Your task to perform on an android device: toggle pop-ups in chrome Image 0: 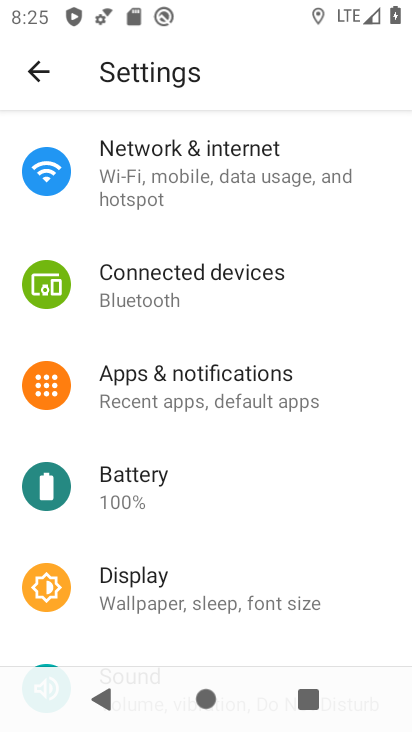
Step 0: press back button
Your task to perform on an android device: toggle pop-ups in chrome Image 1: 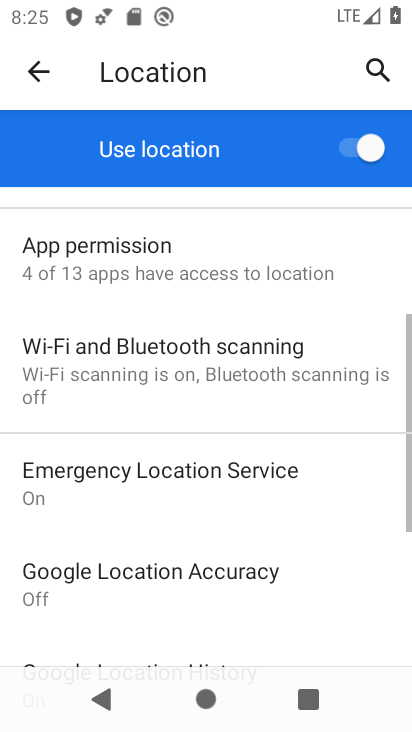
Step 1: press back button
Your task to perform on an android device: toggle pop-ups in chrome Image 2: 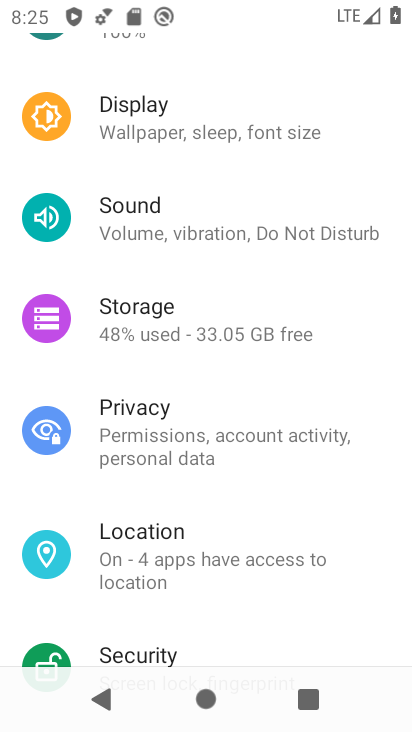
Step 2: press back button
Your task to perform on an android device: toggle pop-ups in chrome Image 3: 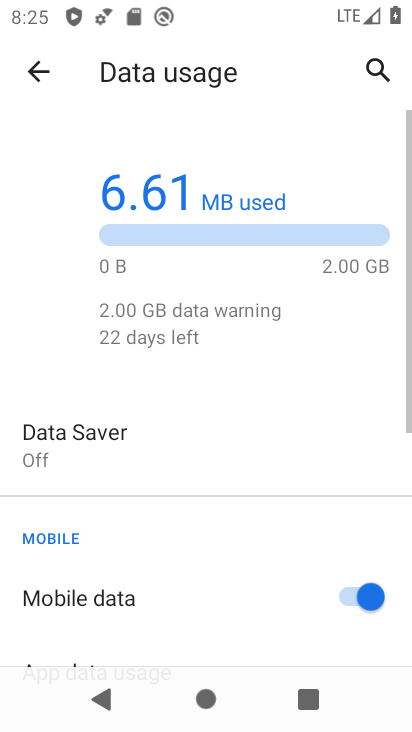
Step 3: press back button
Your task to perform on an android device: toggle pop-ups in chrome Image 4: 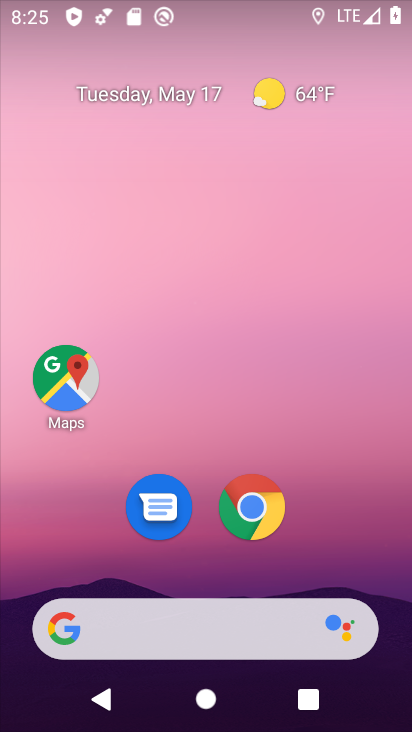
Step 4: click (251, 506)
Your task to perform on an android device: toggle pop-ups in chrome Image 5: 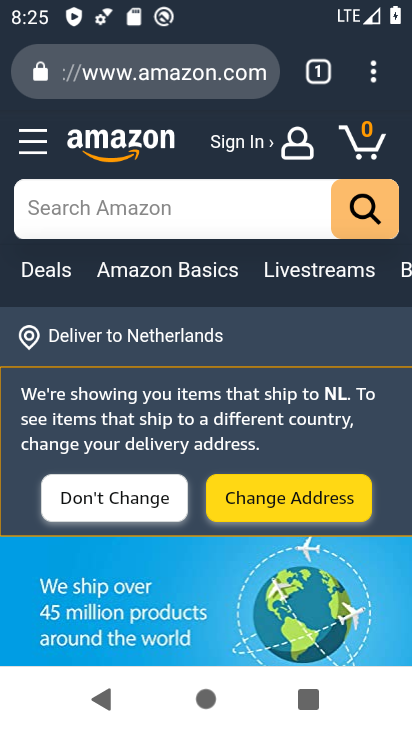
Step 5: click (373, 72)
Your task to perform on an android device: toggle pop-ups in chrome Image 6: 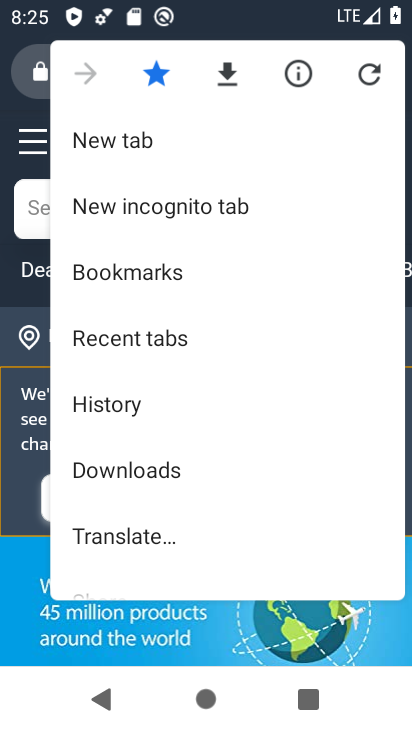
Step 6: drag from (140, 488) to (179, 390)
Your task to perform on an android device: toggle pop-ups in chrome Image 7: 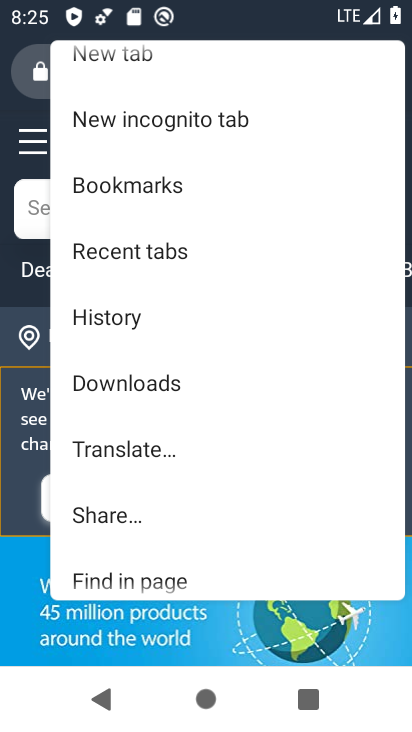
Step 7: drag from (96, 484) to (145, 391)
Your task to perform on an android device: toggle pop-ups in chrome Image 8: 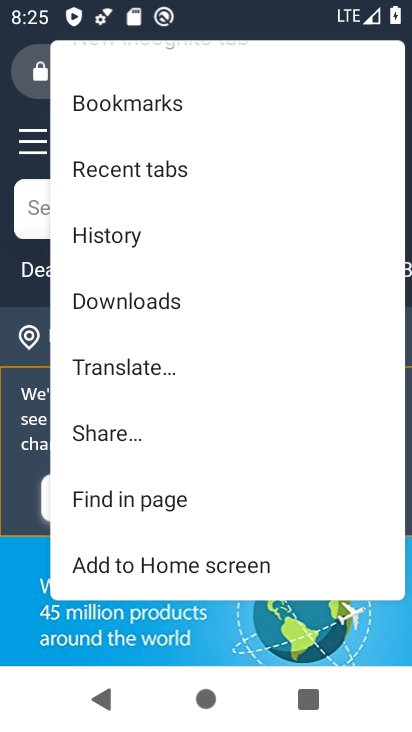
Step 8: drag from (97, 475) to (157, 376)
Your task to perform on an android device: toggle pop-ups in chrome Image 9: 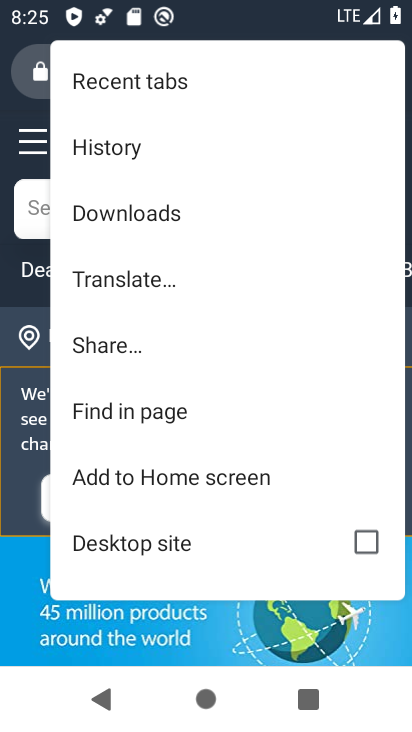
Step 9: drag from (111, 501) to (172, 396)
Your task to perform on an android device: toggle pop-ups in chrome Image 10: 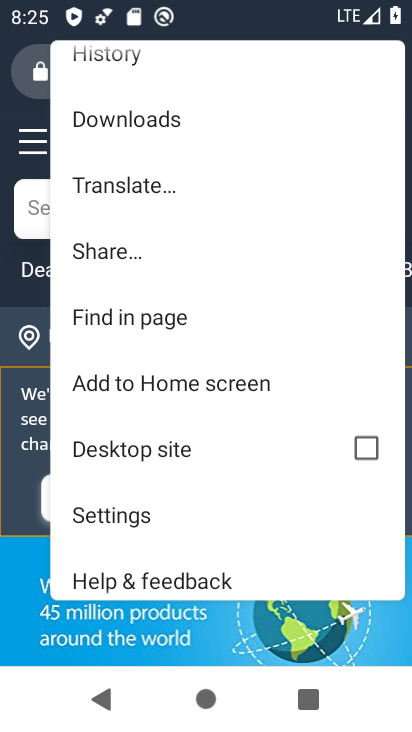
Step 10: drag from (108, 490) to (172, 373)
Your task to perform on an android device: toggle pop-ups in chrome Image 11: 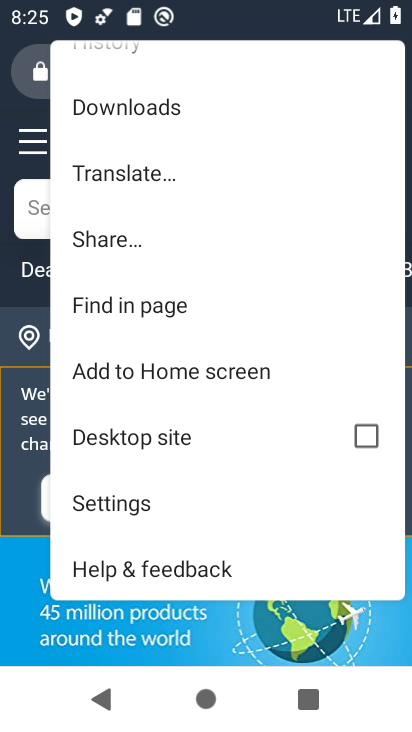
Step 11: click (105, 503)
Your task to perform on an android device: toggle pop-ups in chrome Image 12: 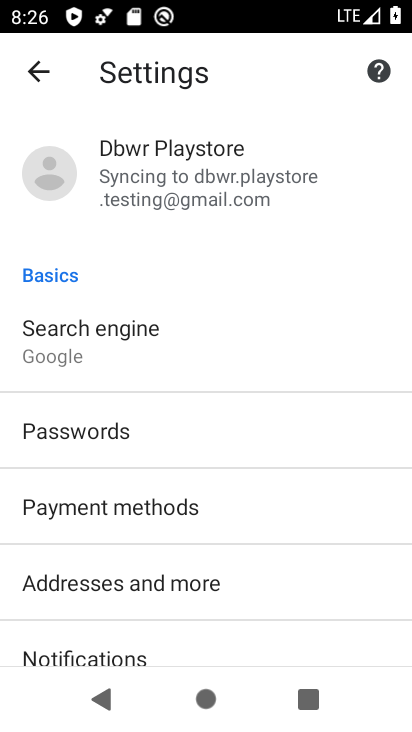
Step 12: drag from (133, 537) to (216, 425)
Your task to perform on an android device: toggle pop-ups in chrome Image 13: 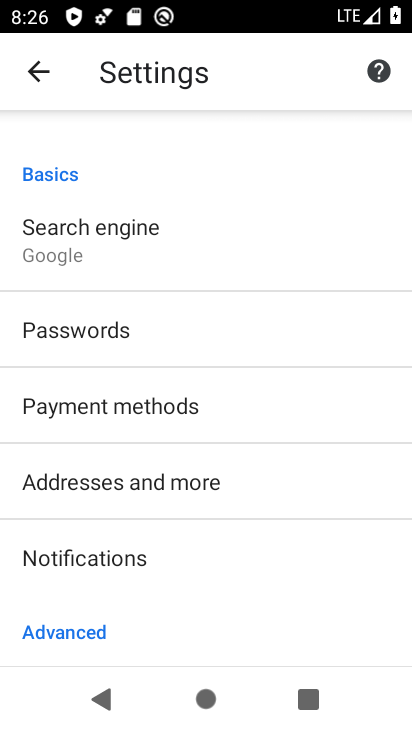
Step 13: drag from (143, 567) to (241, 445)
Your task to perform on an android device: toggle pop-ups in chrome Image 14: 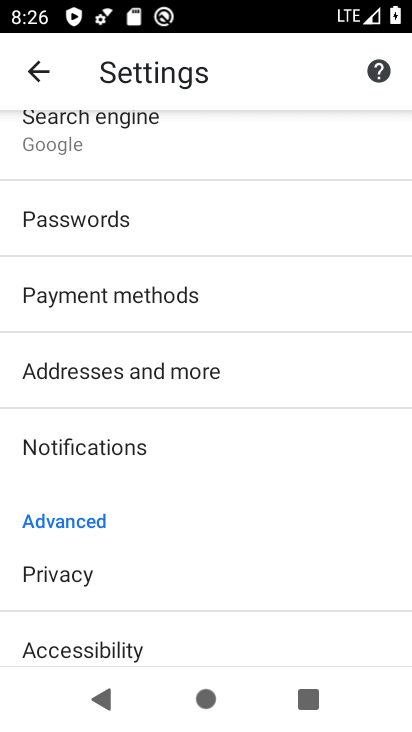
Step 14: drag from (128, 586) to (191, 478)
Your task to perform on an android device: toggle pop-ups in chrome Image 15: 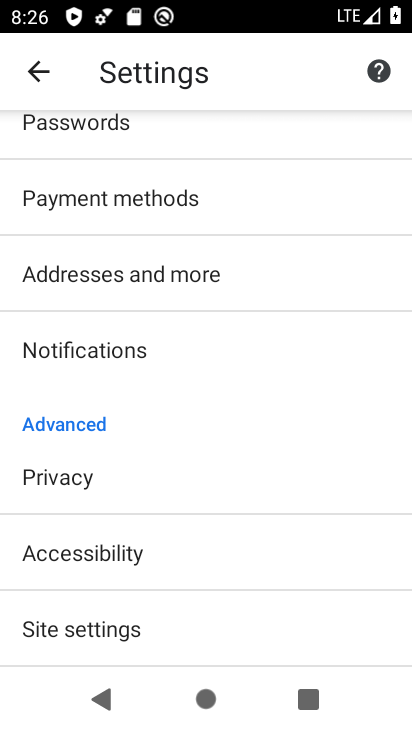
Step 15: drag from (137, 580) to (204, 474)
Your task to perform on an android device: toggle pop-ups in chrome Image 16: 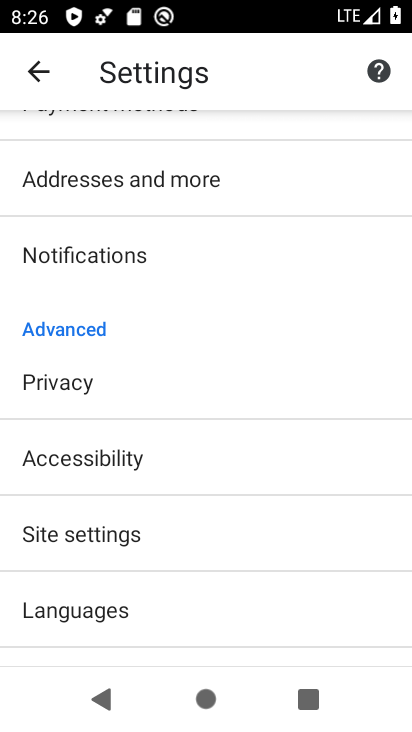
Step 16: click (119, 534)
Your task to perform on an android device: toggle pop-ups in chrome Image 17: 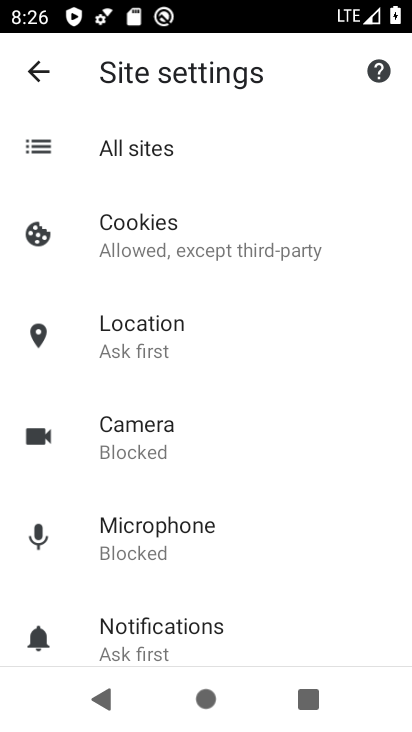
Step 17: drag from (251, 537) to (257, 446)
Your task to perform on an android device: toggle pop-ups in chrome Image 18: 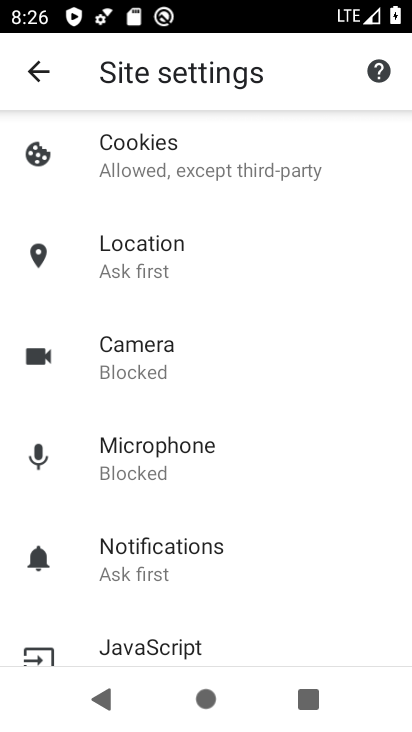
Step 18: drag from (257, 555) to (257, 465)
Your task to perform on an android device: toggle pop-ups in chrome Image 19: 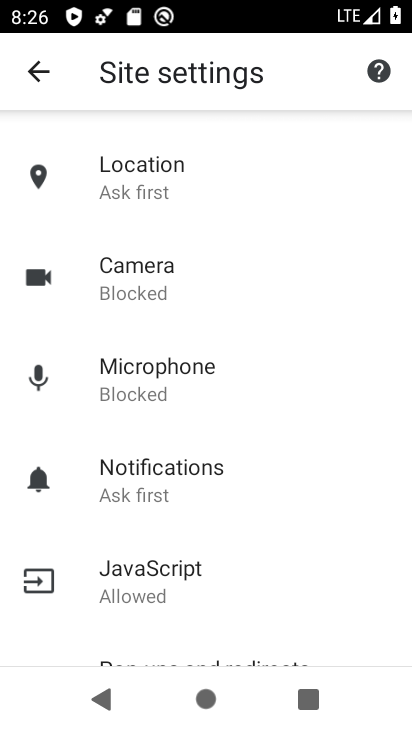
Step 19: drag from (230, 560) to (250, 480)
Your task to perform on an android device: toggle pop-ups in chrome Image 20: 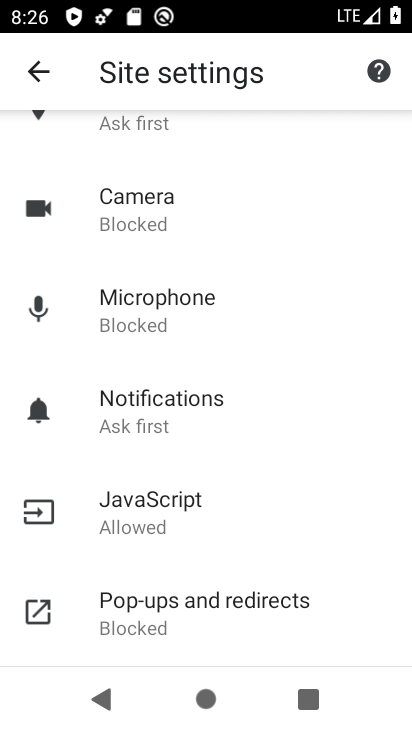
Step 20: drag from (245, 540) to (252, 461)
Your task to perform on an android device: toggle pop-ups in chrome Image 21: 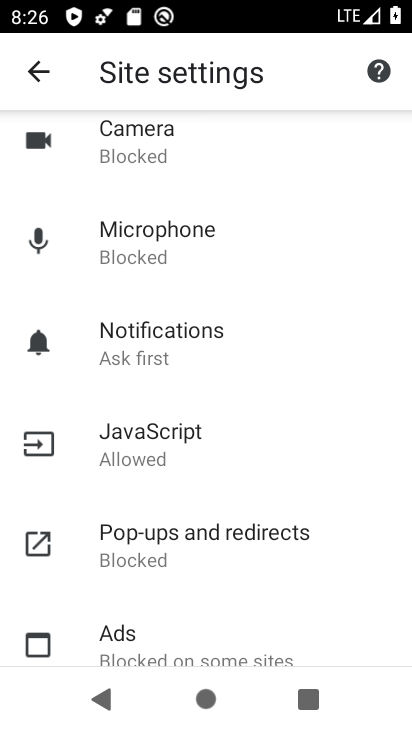
Step 21: click (222, 525)
Your task to perform on an android device: toggle pop-ups in chrome Image 22: 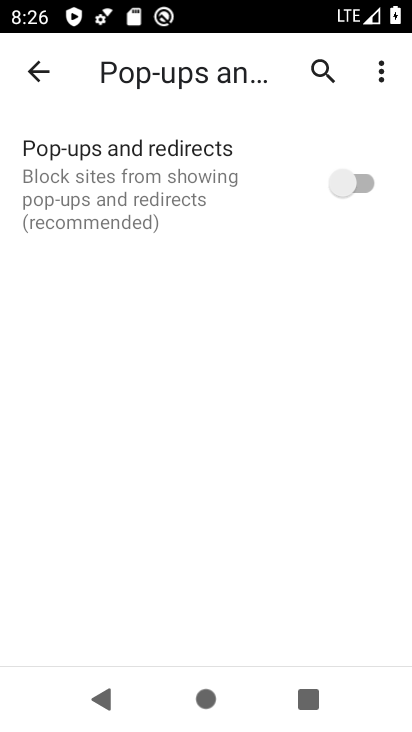
Step 22: click (349, 193)
Your task to perform on an android device: toggle pop-ups in chrome Image 23: 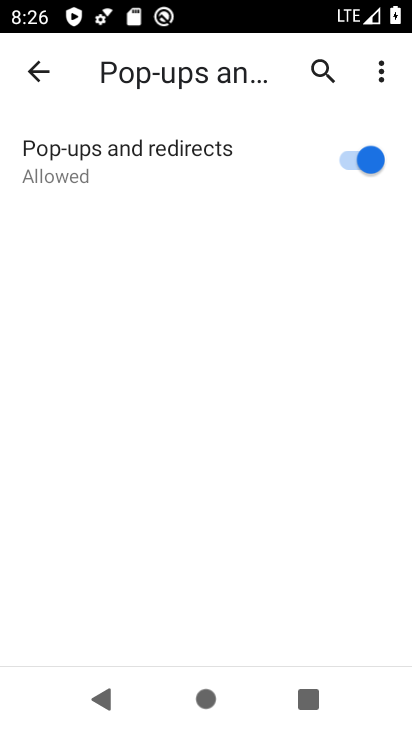
Step 23: task complete